Your task to perform on an android device: install app "Adobe Express: Graphic Design" Image 0: 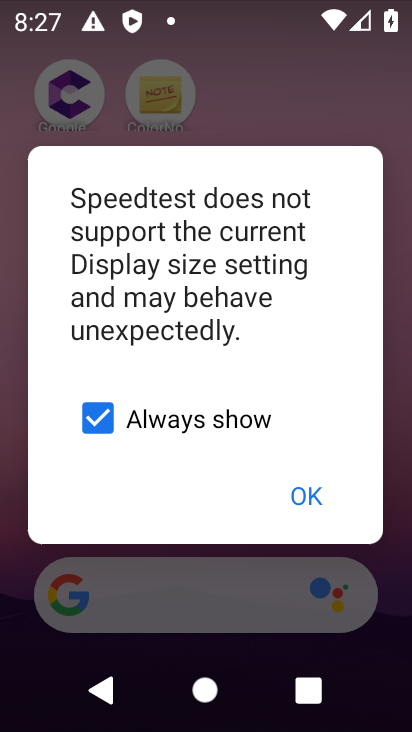
Step 0: press home button
Your task to perform on an android device: install app "Adobe Express: Graphic Design" Image 1: 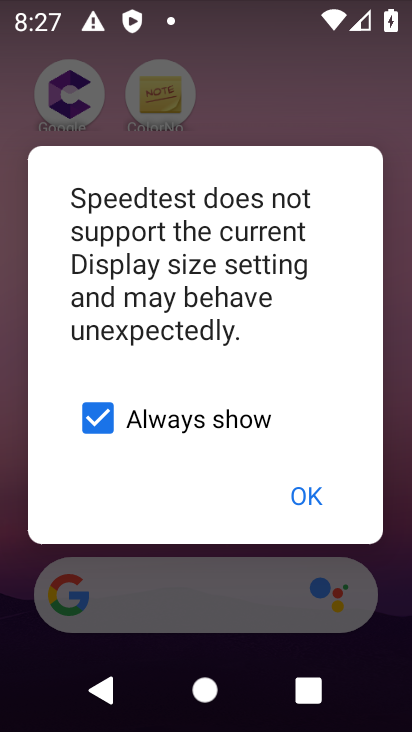
Step 1: click (301, 491)
Your task to perform on an android device: install app "Adobe Express: Graphic Design" Image 2: 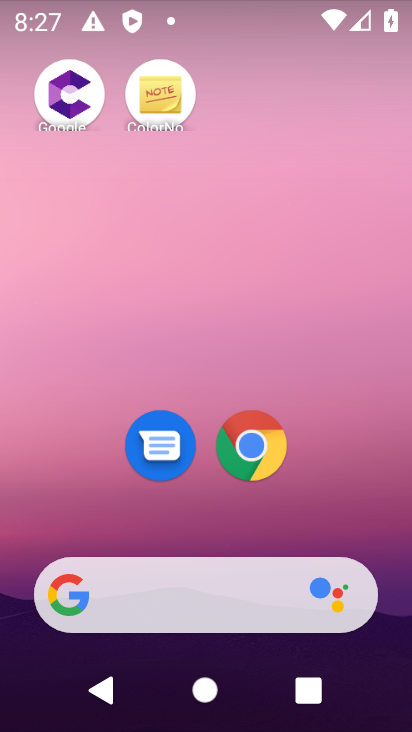
Step 2: drag from (162, 655) to (226, 42)
Your task to perform on an android device: install app "Adobe Express: Graphic Design" Image 3: 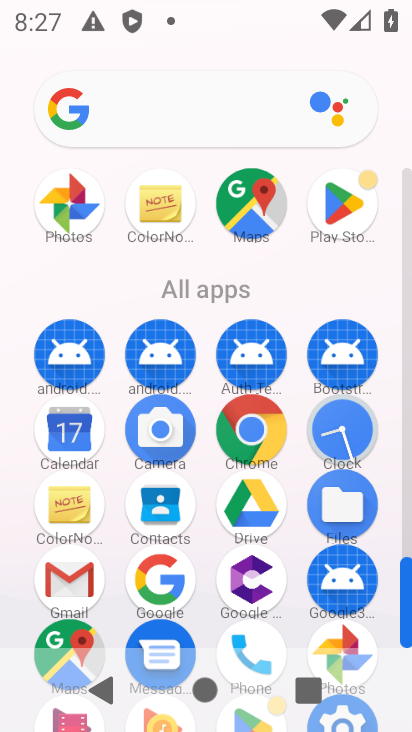
Step 3: click (354, 206)
Your task to perform on an android device: install app "Adobe Express: Graphic Design" Image 4: 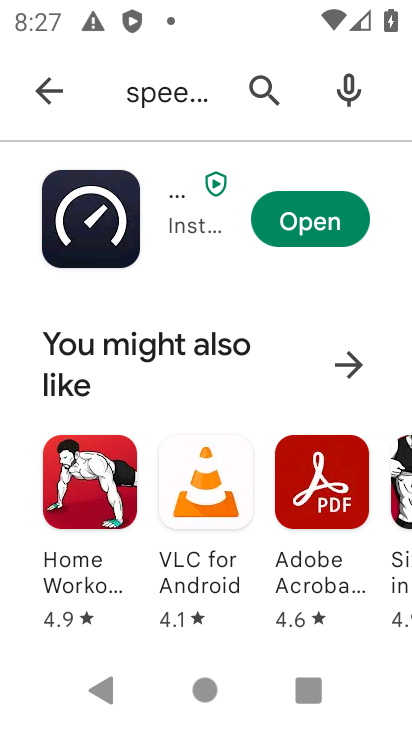
Step 4: click (221, 98)
Your task to perform on an android device: install app "Adobe Express: Graphic Design" Image 5: 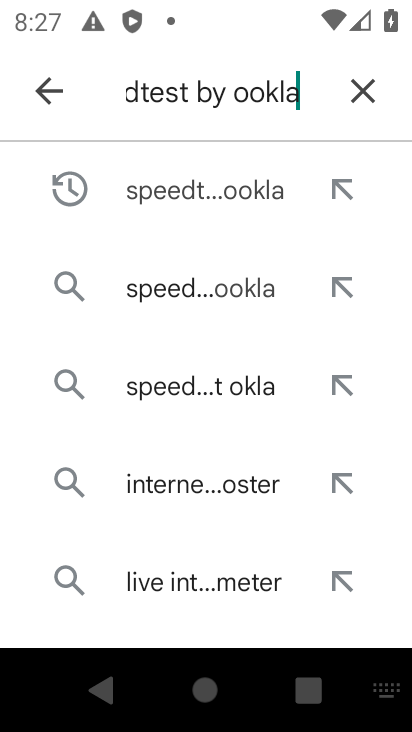
Step 5: press back button
Your task to perform on an android device: install app "Adobe Express: Graphic Design" Image 6: 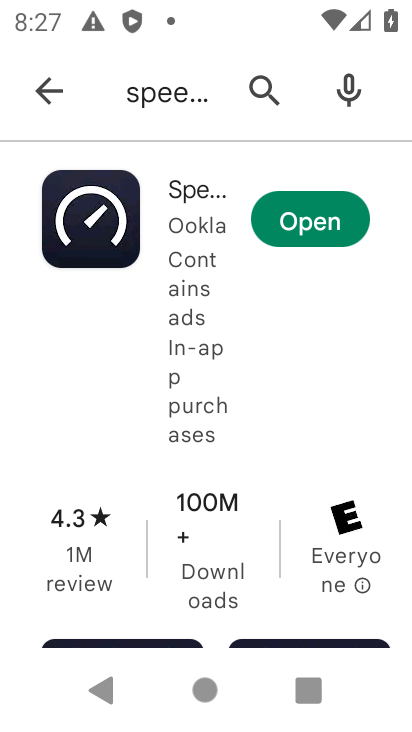
Step 6: press back button
Your task to perform on an android device: install app "Adobe Express: Graphic Design" Image 7: 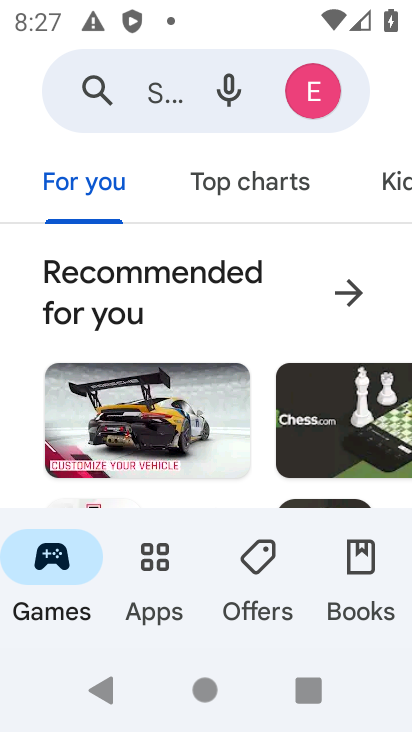
Step 7: click (155, 87)
Your task to perform on an android device: install app "Adobe Express: Graphic Design" Image 8: 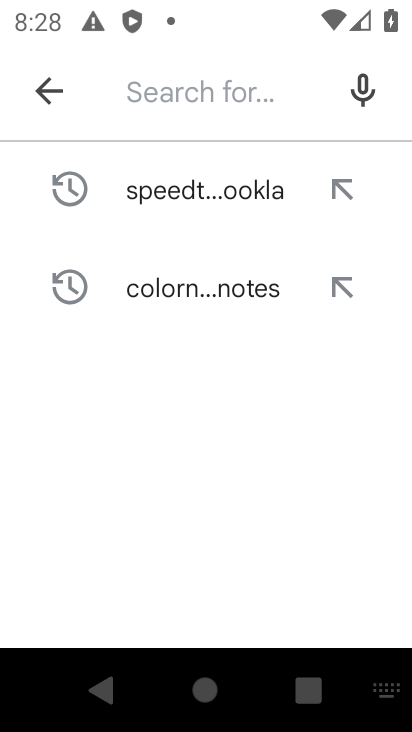
Step 8: type "Adobe Express: Graphic Design"
Your task to perform on an android device: install app "Adobe Express: Graphic Design" Image 9: 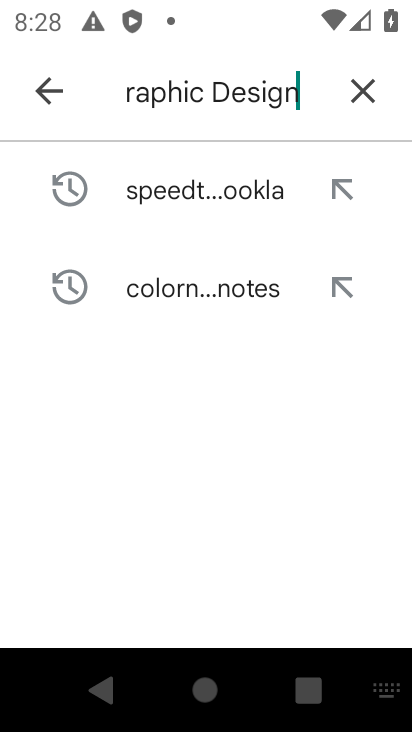
Step 9: type ""
Your task to perform on an android device: install app "Adobe Express: Graphic Design" Image 10: 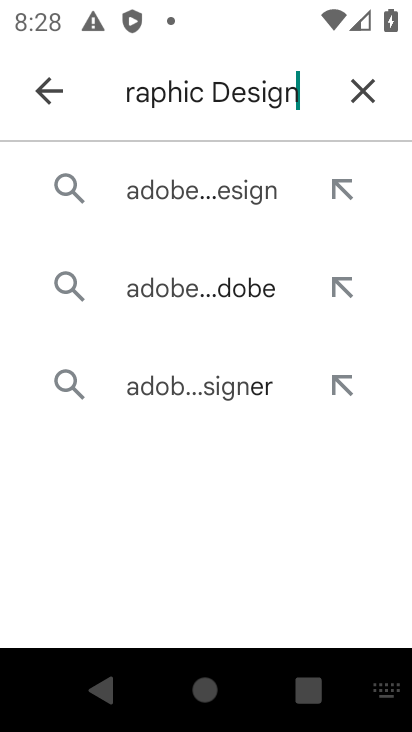
Step 10: click (207, 194)
Your task to perform on an android device: install app "Adobe Express: Graphic Design" Image 11: 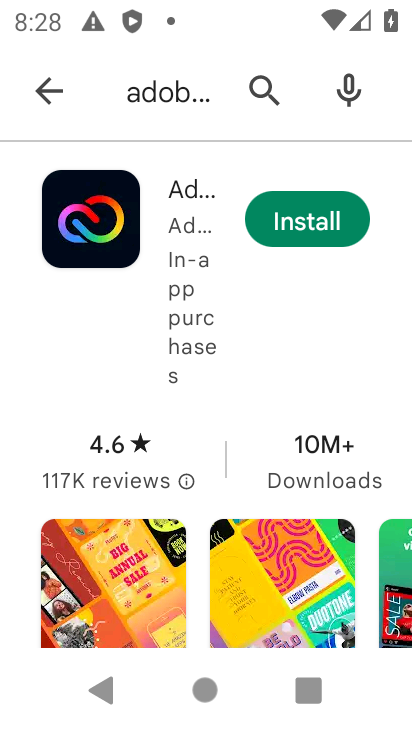
Step 11: click (314, 226)
Your task to perform on an android device: install app "Adobe Express: Graphic Design" Image 12: 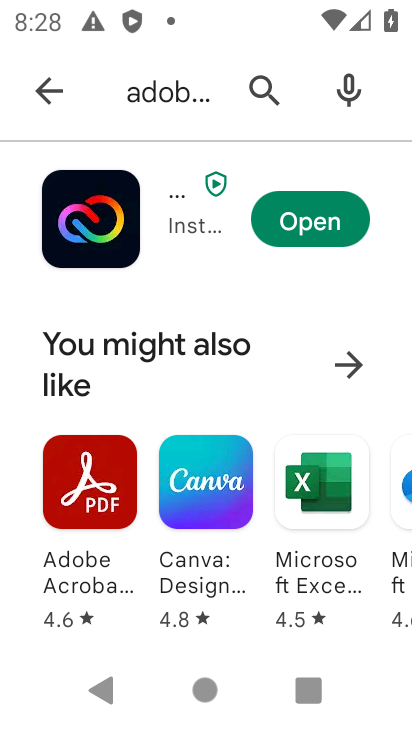
Step 12: task complete